Your task to perform on an android device: Go to wifi settings Image 0: 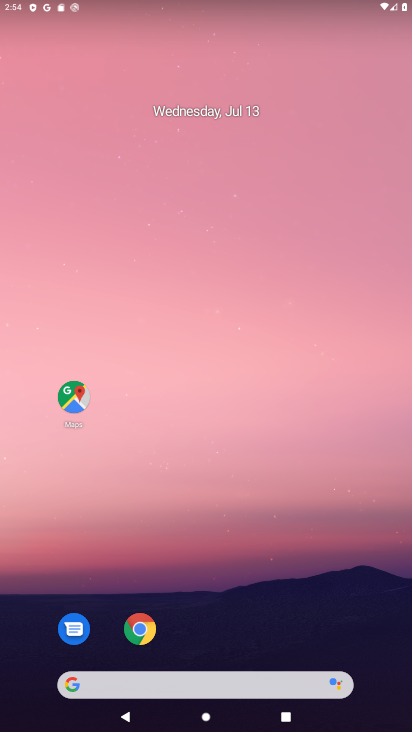
Step 0: drag from (306, 598) to (214, 131)
Your task to perform on an android device: Go to wifi settings Image 1: 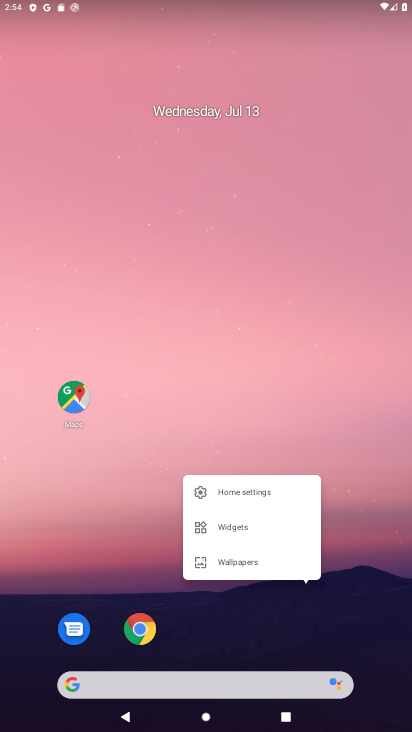
Step 1: drag from (378, 633) to (283, 110)
Your task to perform on an android device: Go to wifi settings Image 2: 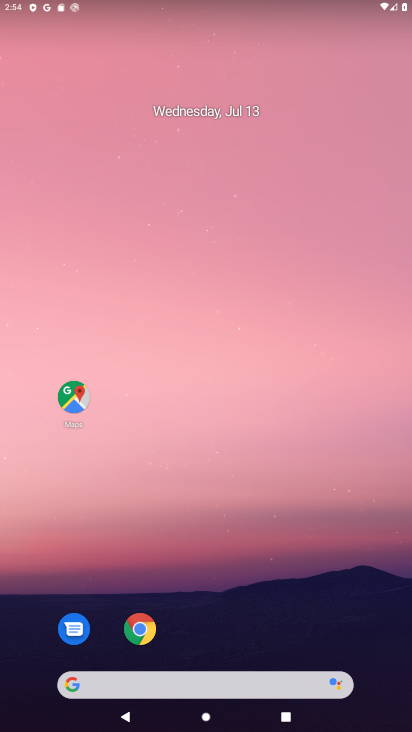
Step 2: drag from (368, 629) to (285, 155)
Your task to perform on an android device: Go to wifi settings Image 3: 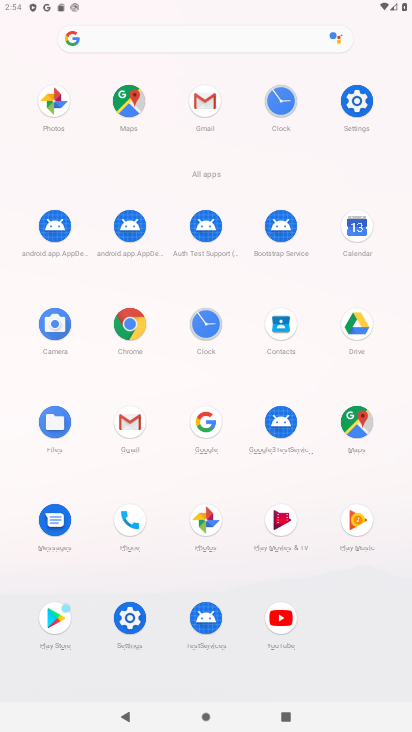
Step 3: click (360, 100)
Your task to perform on an android device: Go to wifi settings Image 4: 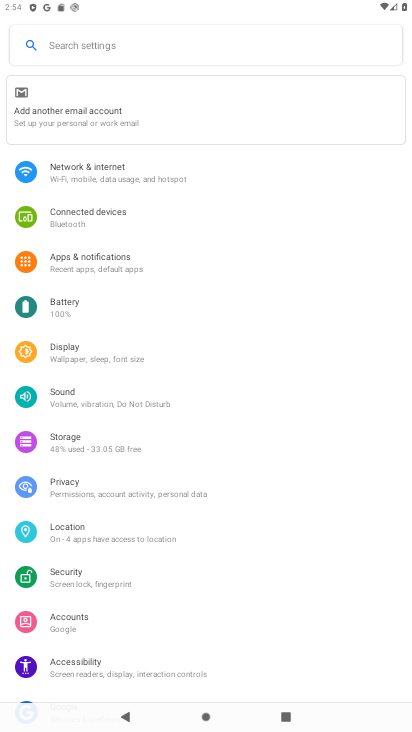
Step 4: click (321, 166)
Your task to perform on an android device: Go to wifi settings Image 5: 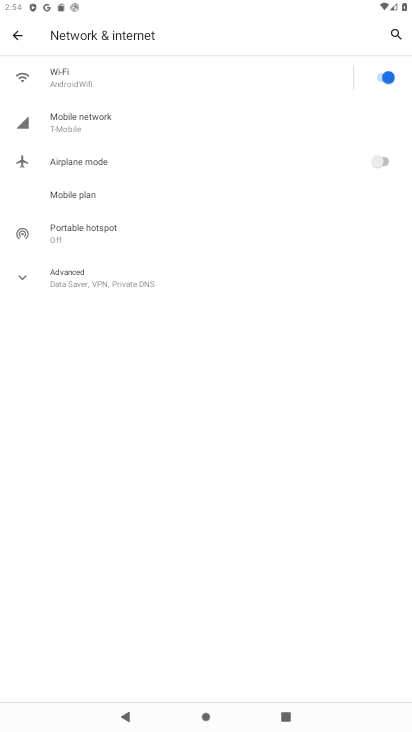
Step 5: click (190, 74)
Your task to perform on an android device: Go to wifi settings Image 6: 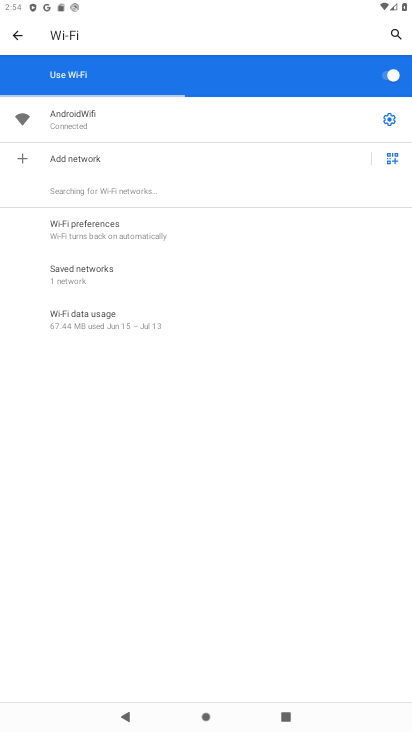
Step 6: task complete